Your task to perform on an android device: allow cookies in the chrome app Image 0: 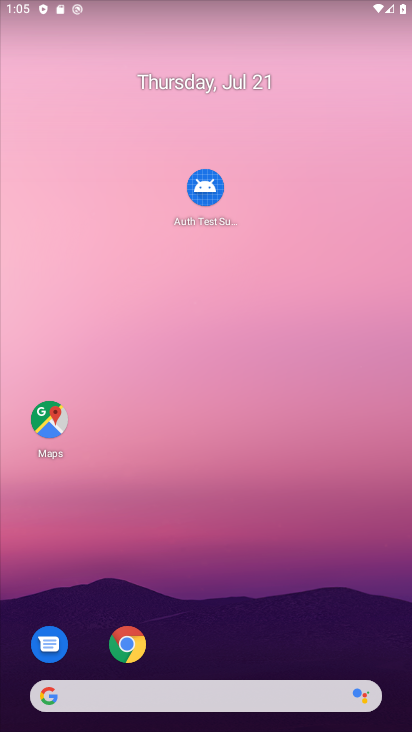
Step 0: drag from (298, 579) to (280, 427)
Your task to perform on an android device: allow cookies in the chrome app Image 1: 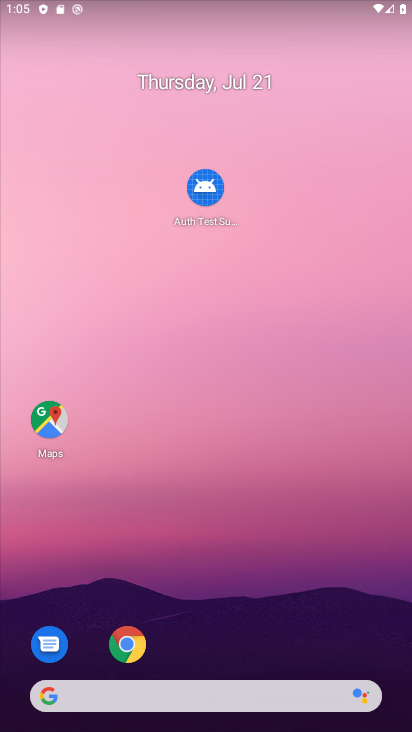
Step 1: drag from (286, 505) to (255, 283)
Your task to perform on an android device: allow cookies in the chrome app Image 2: 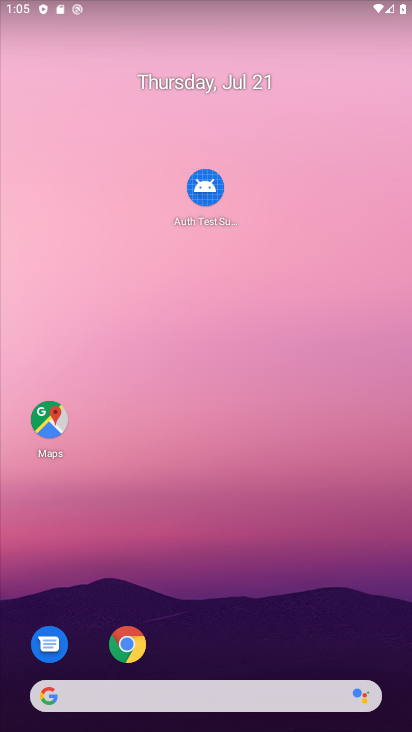
Step 2: drag from (216, 557) to (219, 90)
Your task to perform on an android device: allow cookies in the chrome app Image 3: 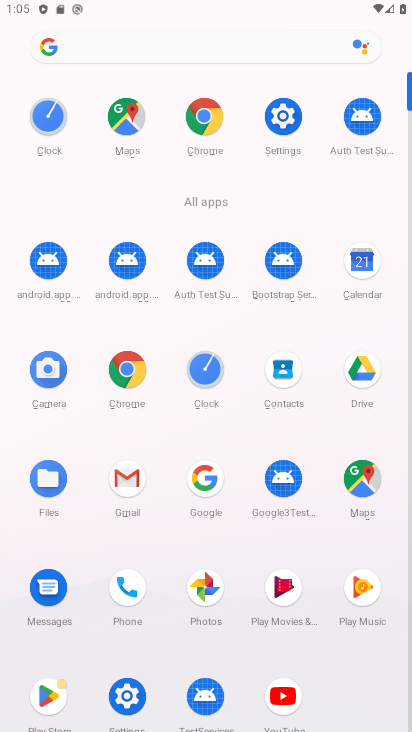
Step 3: click (208, 115)
Your task to perform on an android device: allow cookies in the chrome app Image 4: 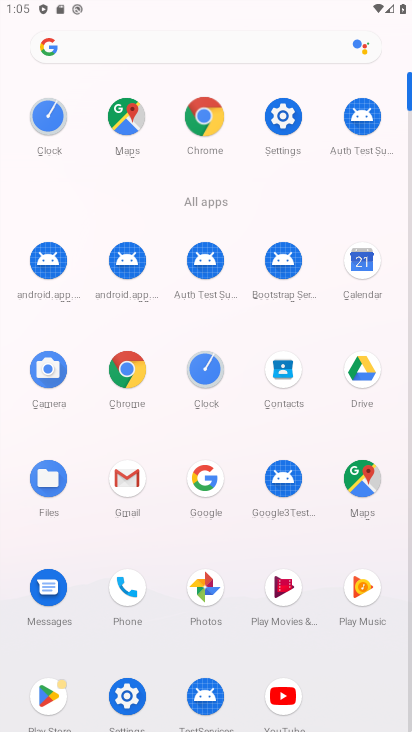
Step 4: click (208, 115)
Your task to perform on an android device: allow cookies in the chrome app Image 5: 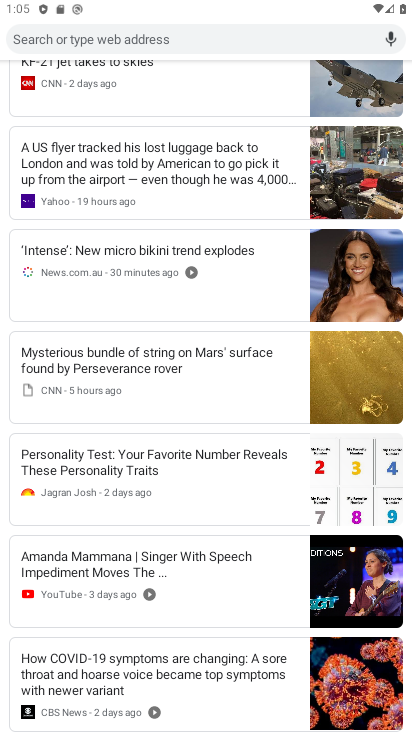
Step 5: drag from (185, 452) to (274, 358)
Your task to perform on an android device: allow cookies in the chrome app Image 6: 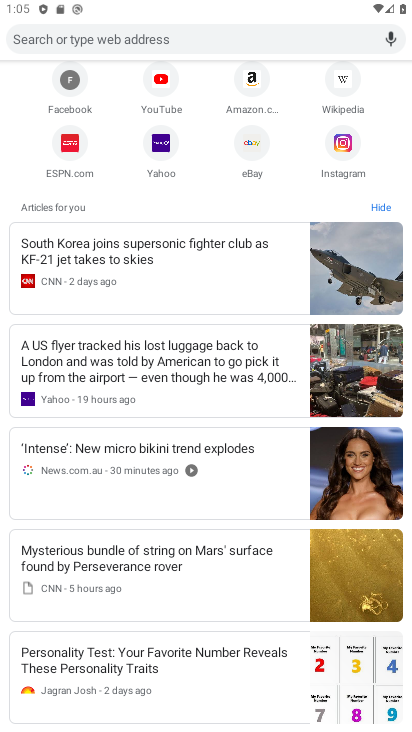
Step 6: click (391, 47)
Your task to perform on an android device: allow cookies in the chrome app Image 7: 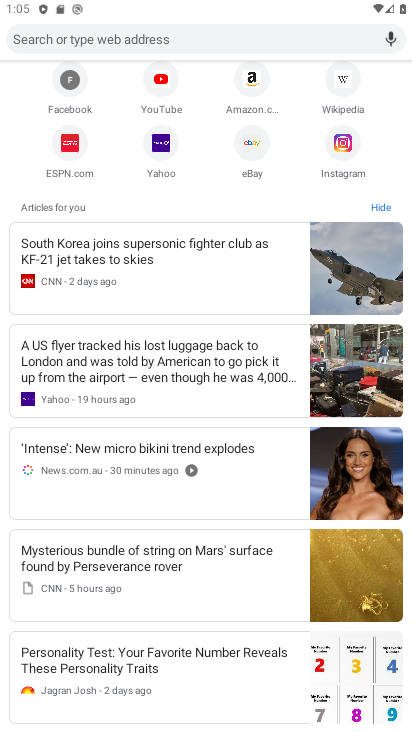
Step 7: click (389, 37)
Your task to perform on an android device: allow cookies in the chrome app Image 8: 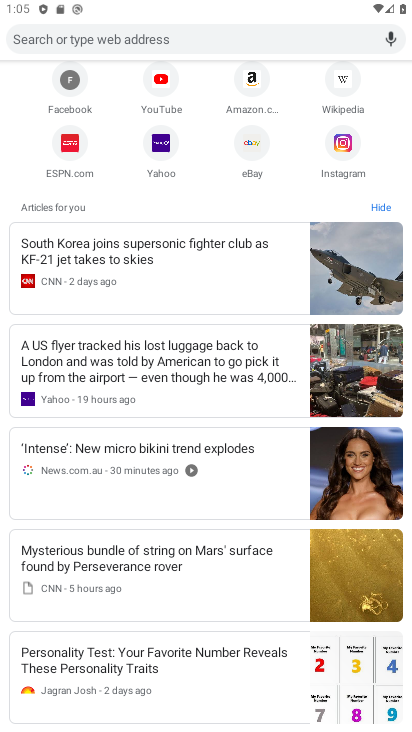
Step 8: click (385, 32)
Your task to perform on an android device: allow cookies in the chrome app Image 9: 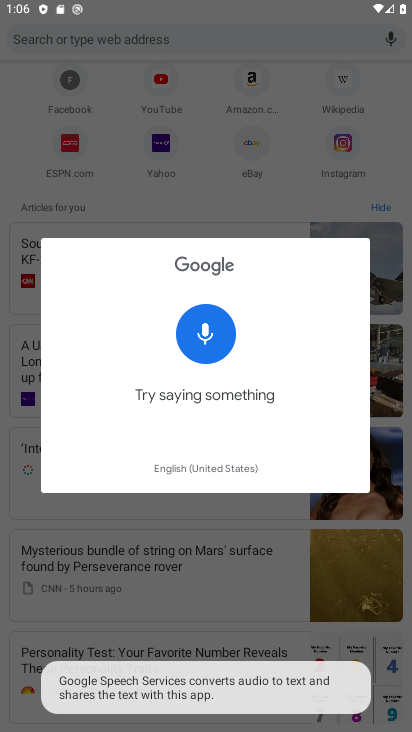
Step 9: click (385, 33)
Your task to perform on an android device: allow cookies in the chrome app Image 10: 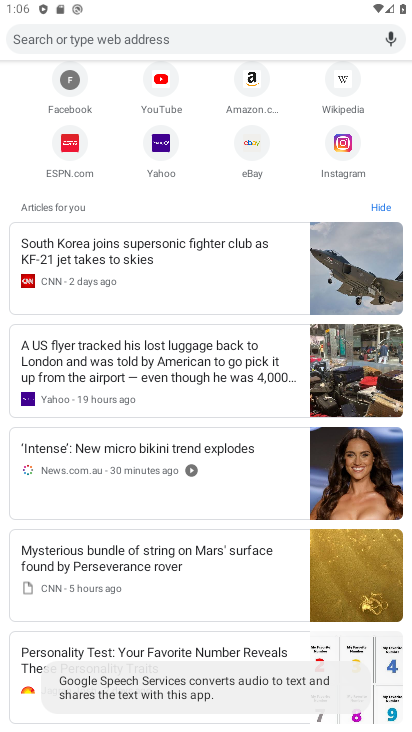
Step 10: drag from (130, 243) to (215, 537)
Your task to perform on an android device: allow cookies in the chrome app Image 11: 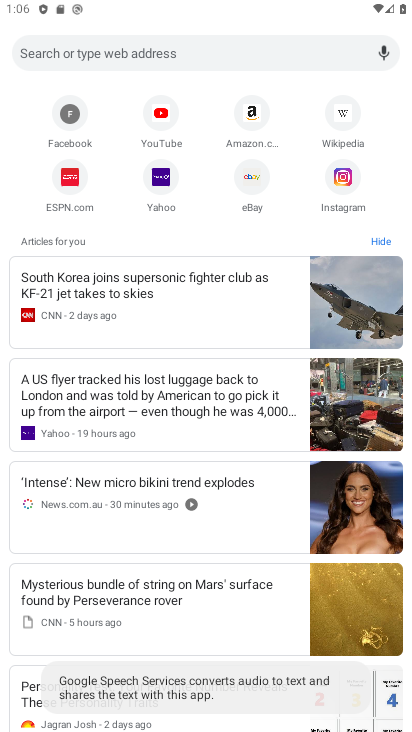
Step 11: drag from (291, 121) to (233, 477)
Your task to perform on an android device: allow cookies in the chrome app Image 12: 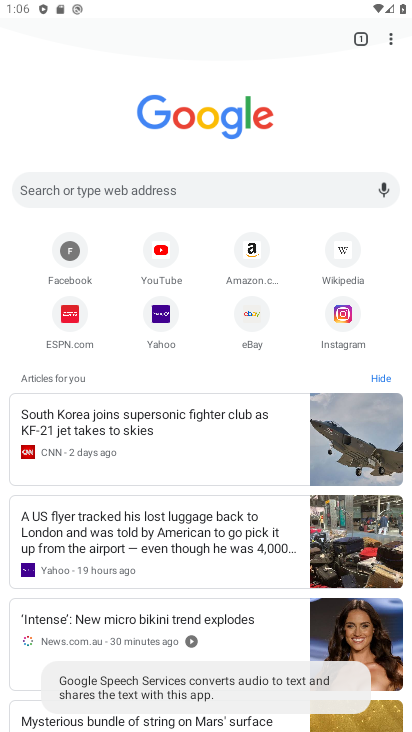
Step 12: drag from (216, 92) to (323, 547)
Your task to perform on an android device: allow cookies in the chrome app Image 13: 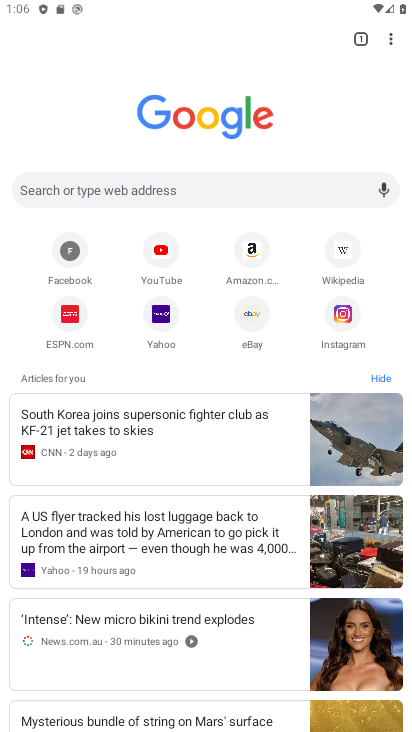
Step 13: click (396, 36)
Your task to perform on an android device: allow cookies in the chrome app Image 14: 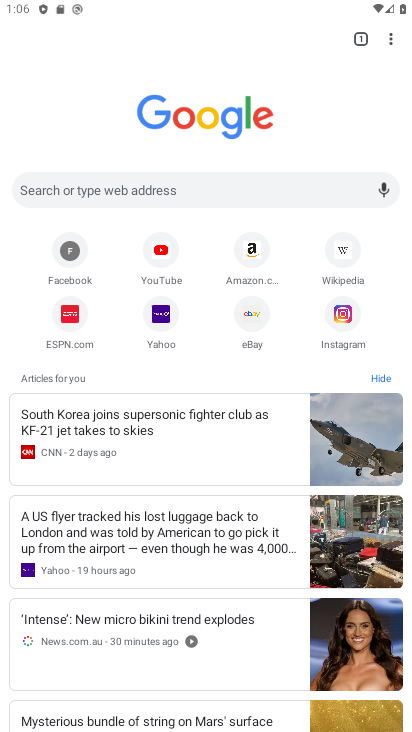
Step 14: click (390, 37)
Your task to perform on an android device: allow cookies in the chrome app Image 15: 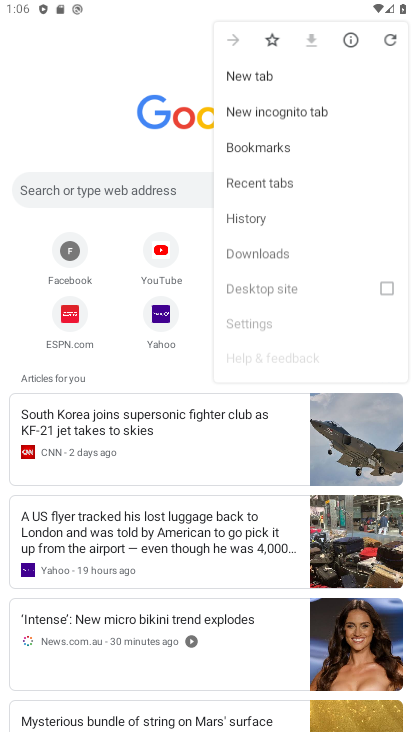
Step 15: click (388, 29)
Your task to perform on an android device: allow cookies in the chrome app Image 16: 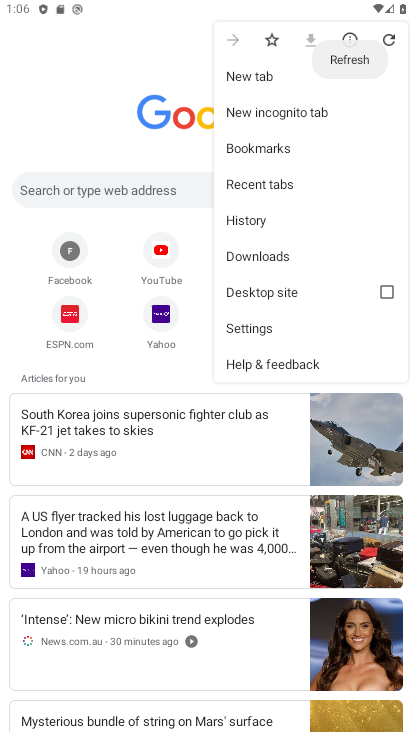
Step 16: click (254, 317)
Your task to perform on an android device: allow cookies in the chrome app Image 17: 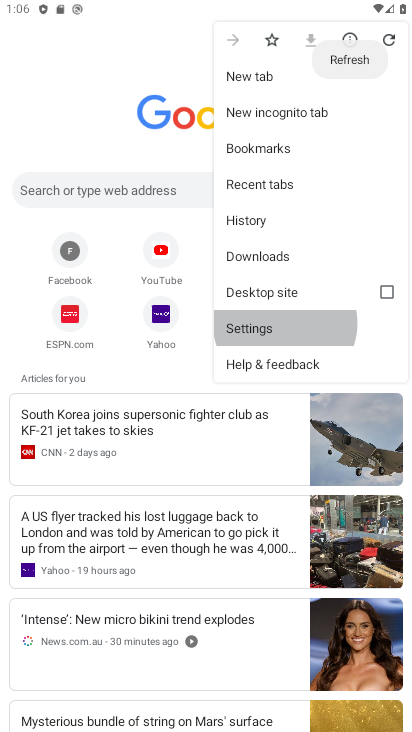
Step 17: click (254, 322)
Your task to perform on an android device: allow cookies in the chrome app Image 18: 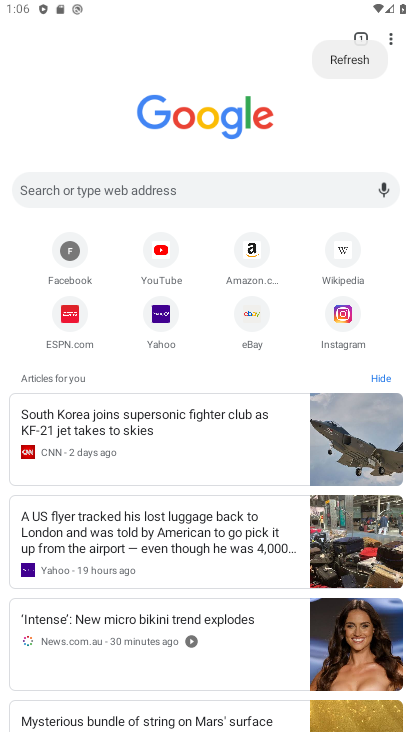
Step 18: click (254, 323)
Your task to perform on an android device: allow cookies in the chrome app Image 19: 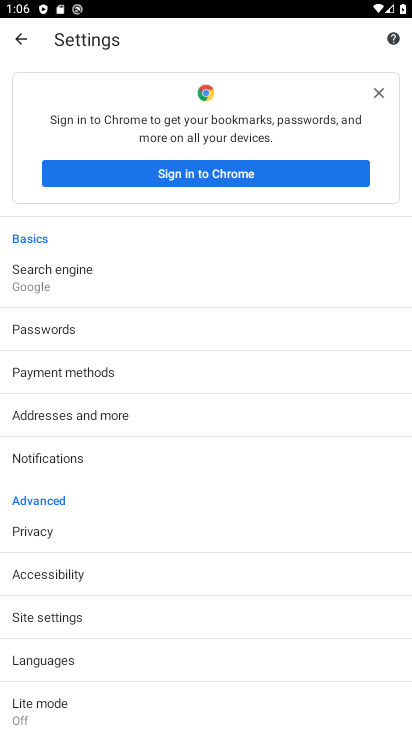
Step 19: click (45, 614)
Your task to perform on an android device: allow cookies in the chrome app Image 20: 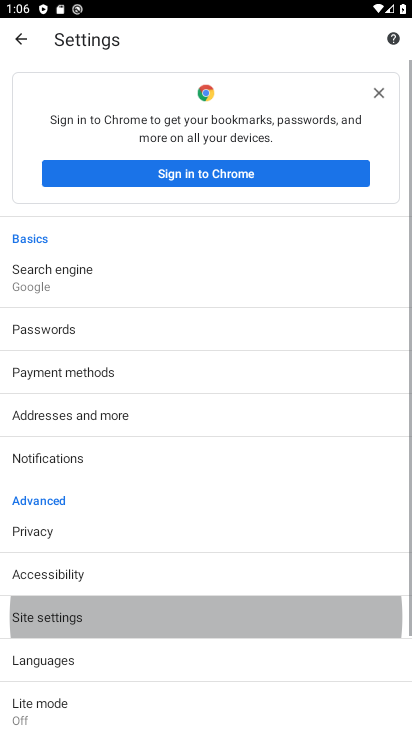
Step 20: click (46, 613)
Your task to perform on an android device: allow cookies in the chrome app Image 21: 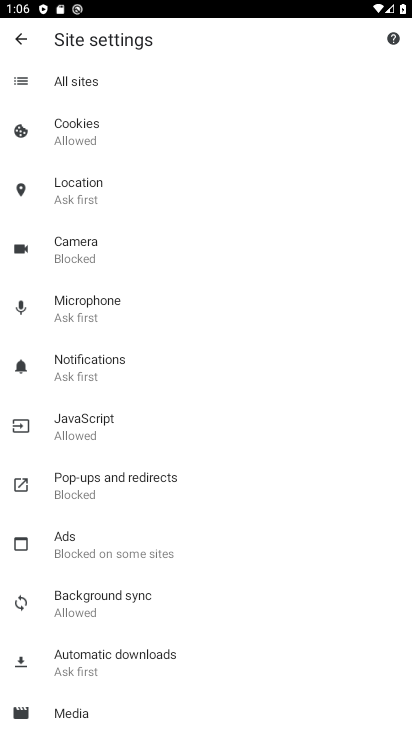
Step 21: click (63, 126)
Your task to perform on an android device: allow cookies in the chrome app Image 22: 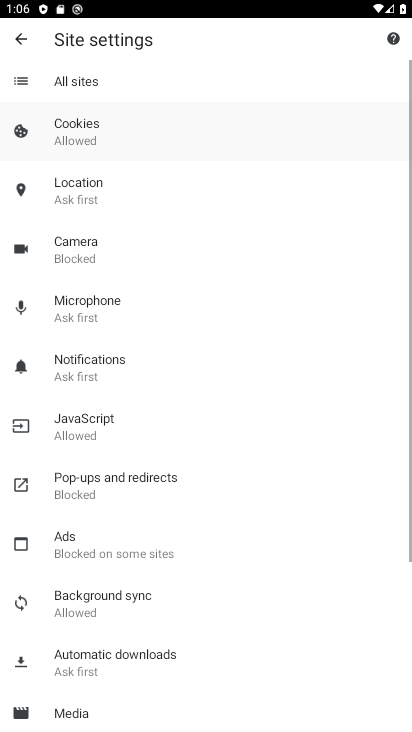
Step 22: click (63, 126)
Your task to perform on an android device: allow cookies in the chrome app Image 23: 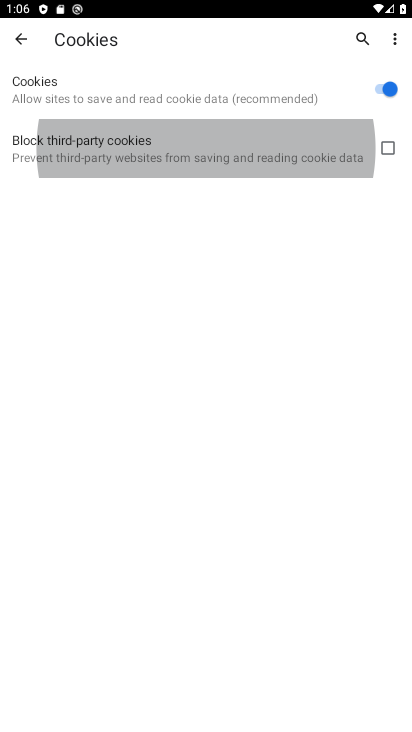
Step 23: click (65, 130)
Your task to perform on an android device: allow cookies in the chrome app Image 24: 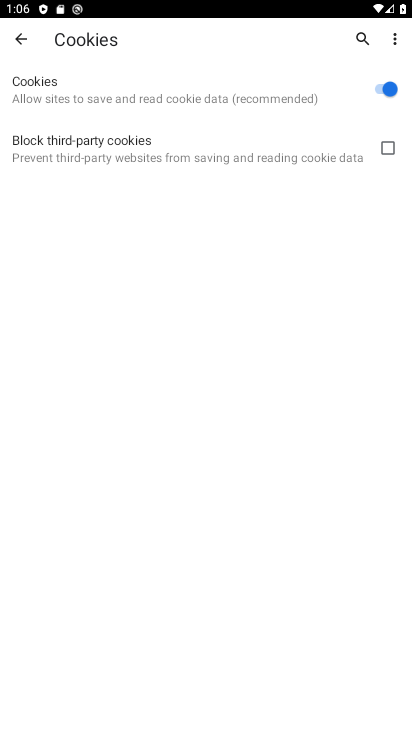
Step 24: task complete